Your task to perform on an android device: Show me popular games on the Play Store Image 0: 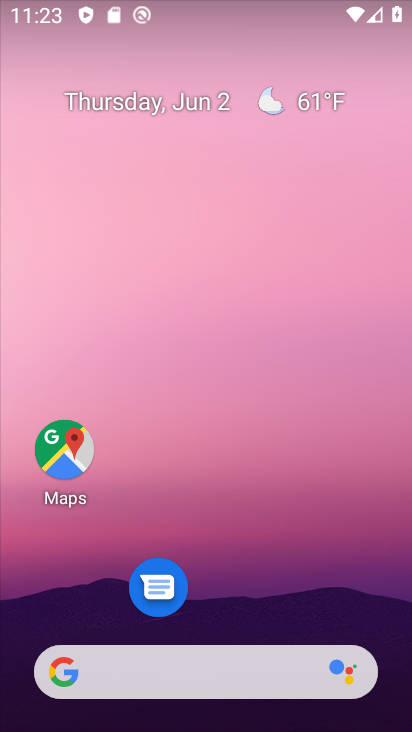
Step 0: drag from (230, 633) to (188, 87)
Your task to perform on an android device: Show me popular games on the Play Store Image 1: 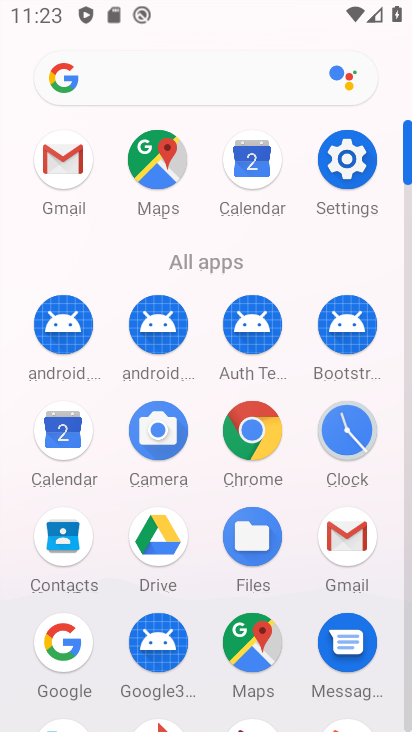
Step 1: drag from (96, 586) to (77, 83)
Your task to perform on an android device: Show me popular games on the Play Store Image 2: 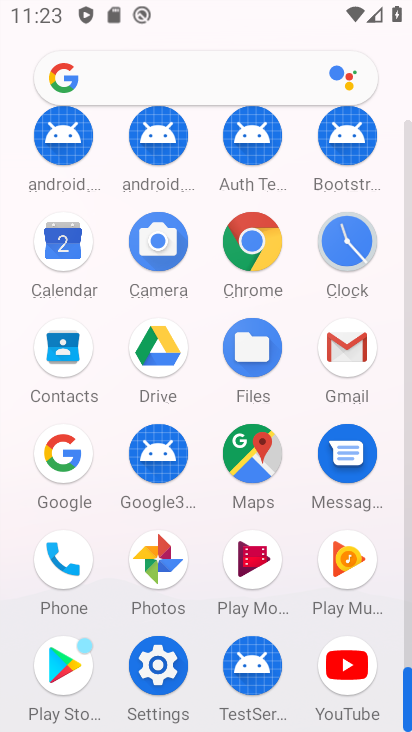
Step 2: click (66, 667)
Your task to perform on an android device: Show me popular games on the Play Store Image 3: 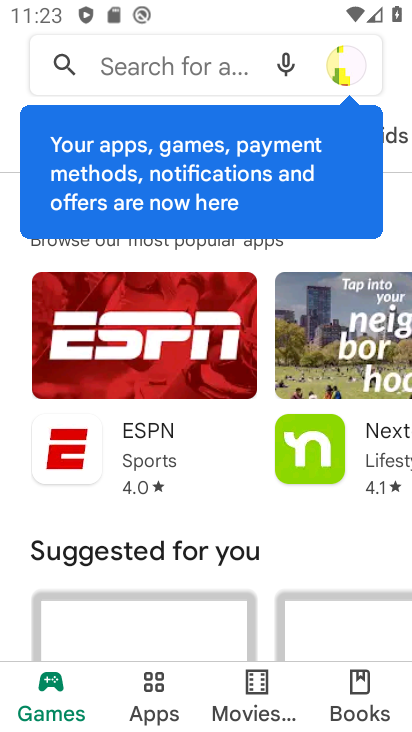
Step 3: drag from (173, 583) to (97, 44)
Your task to perform on an android device: Show me popular games on the Play Store Image 4: 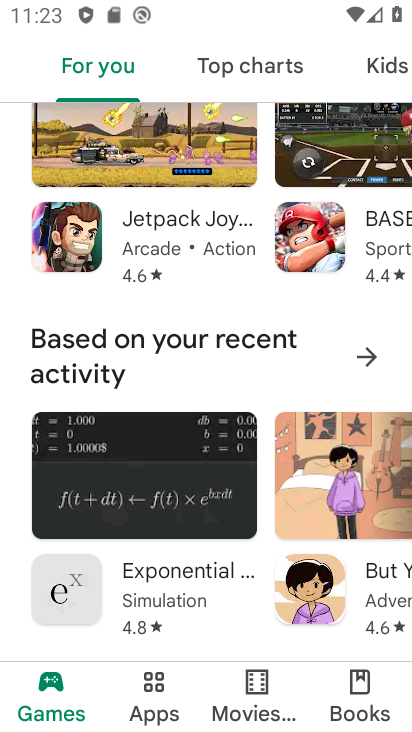
Step 4: drag from (165, 512) to (173, 125)
Your task to perform on an android device: Show me popular games on the Play Store Image 5: 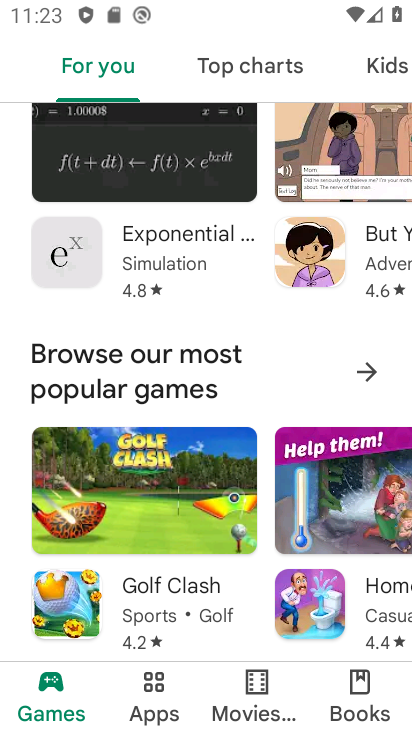
Step 5: click (376, 372)
Your task to perform on an android device: Show me popular games on the Play Store Image 6: 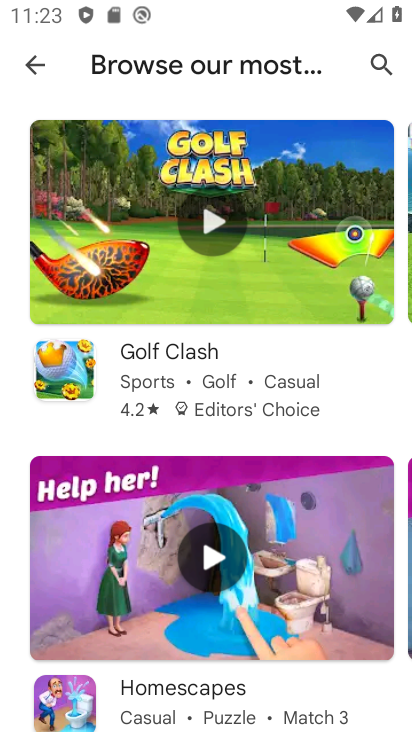
Step 6: task complete